Your task to perform on an android device: Search for lg ultragear on costco, select the first entry, and add it to the cart. Image 0: 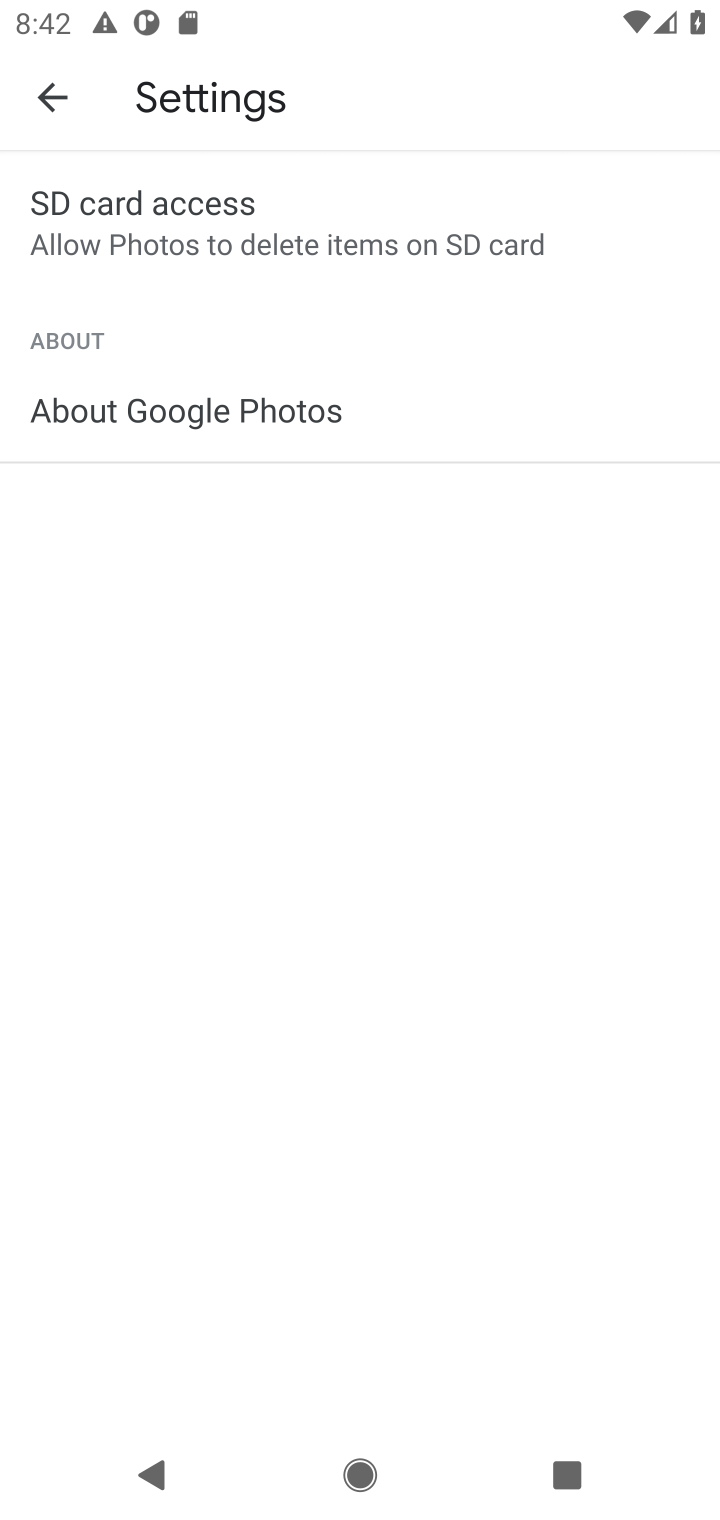
Step 0: press home button
Your task to perform on an android device: Search for lg ultragear on costco, select the first entry, and add it to the cart. Image 1: 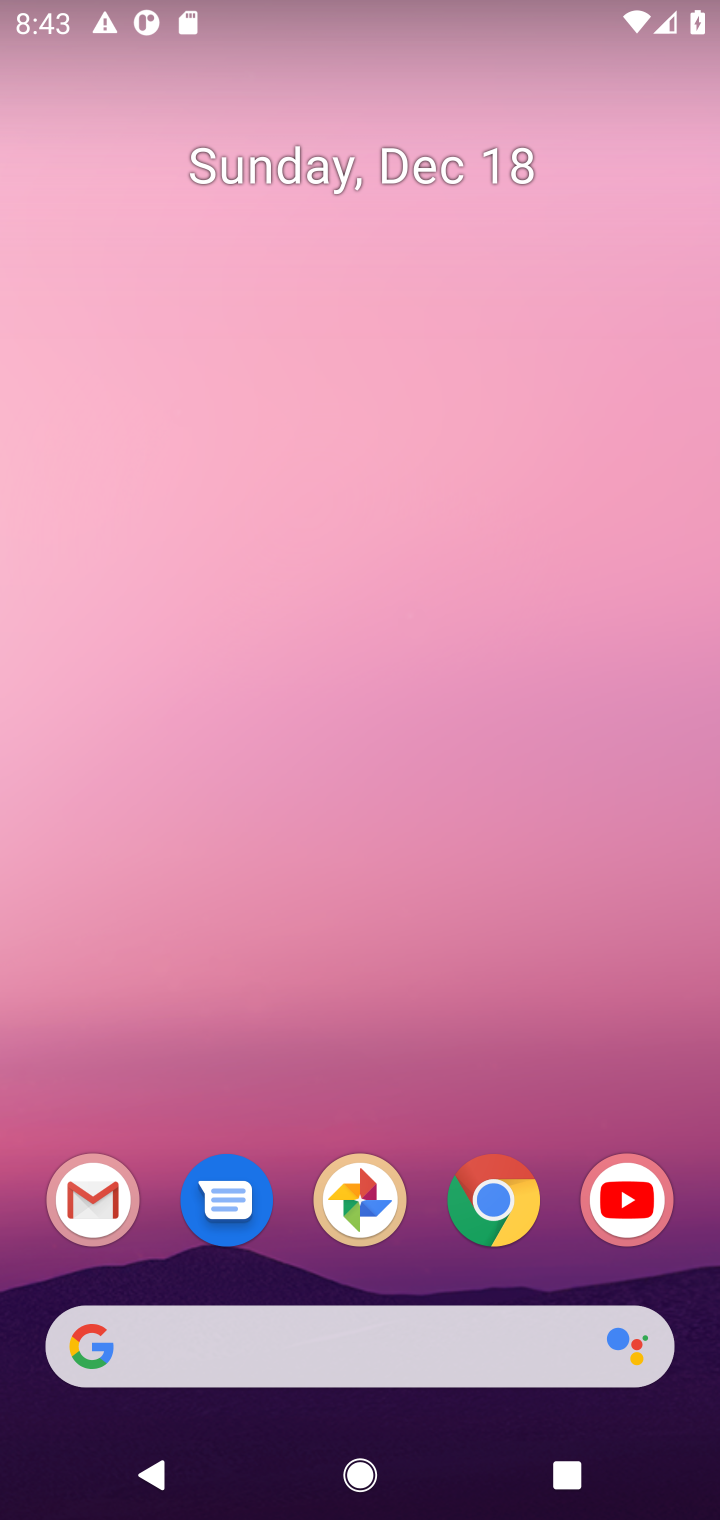
Step 1: click (496, 1207)
Your task to perform on an android device: Search for lg ultragear on costco, select the first entry, and add it to the cart. Image 2: 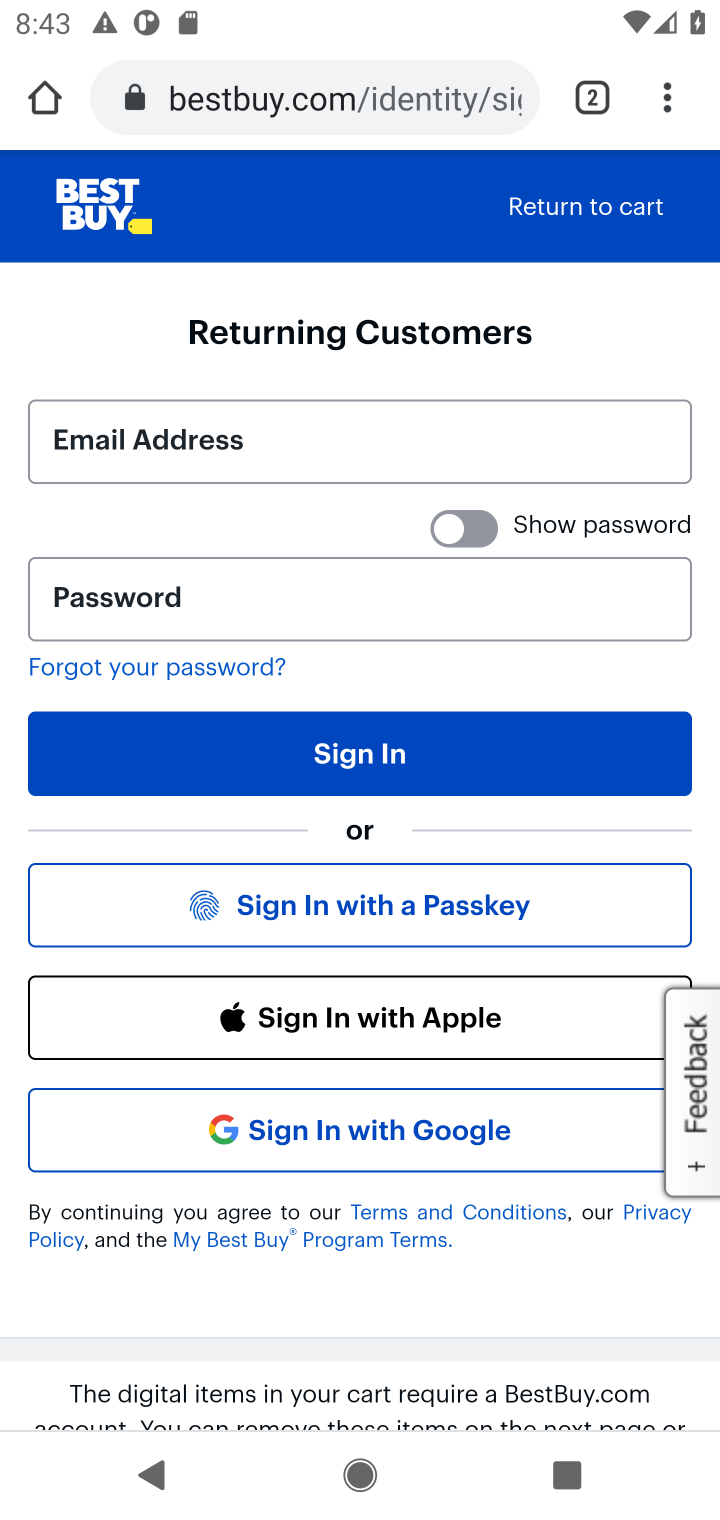
Step 2: click (277, 96)
Your task to perform on an android device: Search for lg ultragear on costco, select the first entry, and add it to the cart. Image 3: 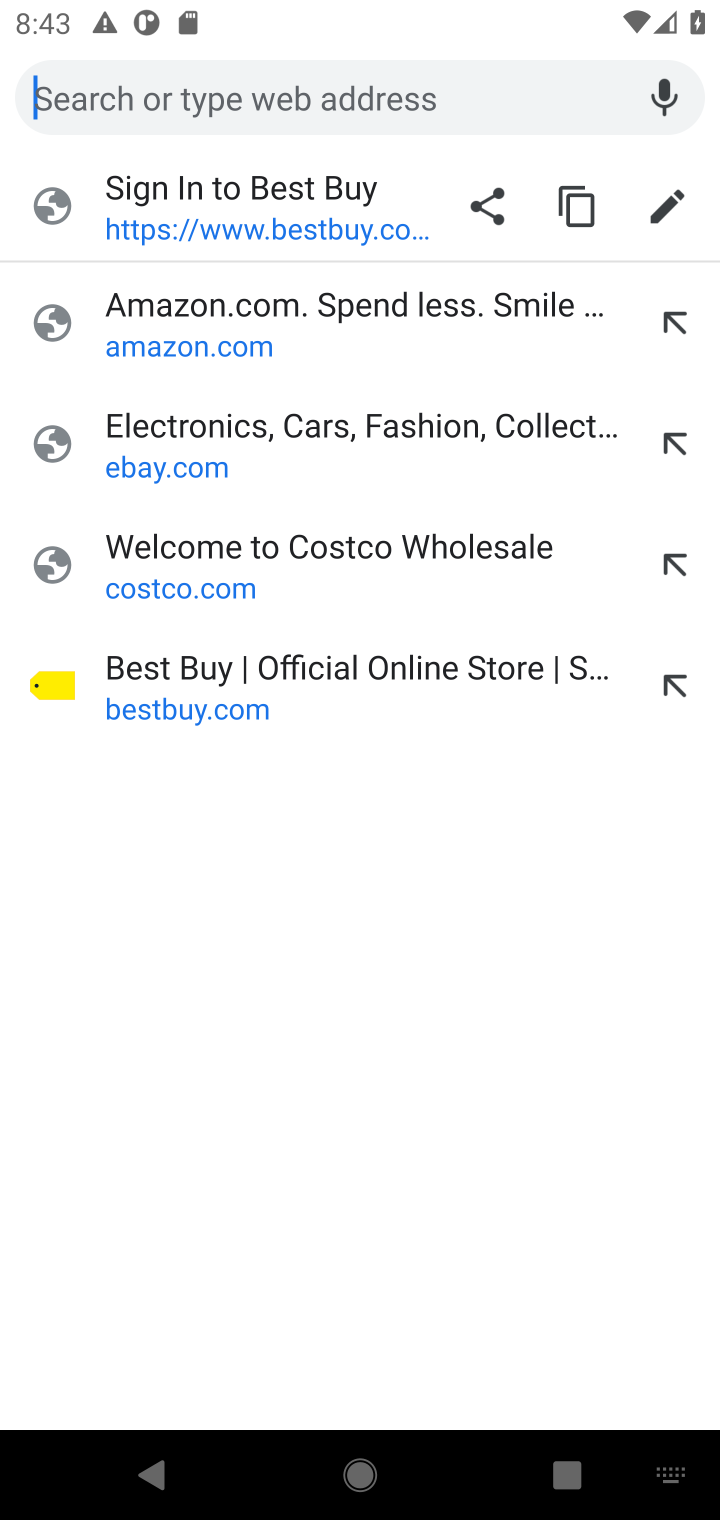
Step 3: click (173, 570)
Your task to perform on an android device: Search for lg ultragear on costco, select the first entry, and add it to the cart. Image 4: 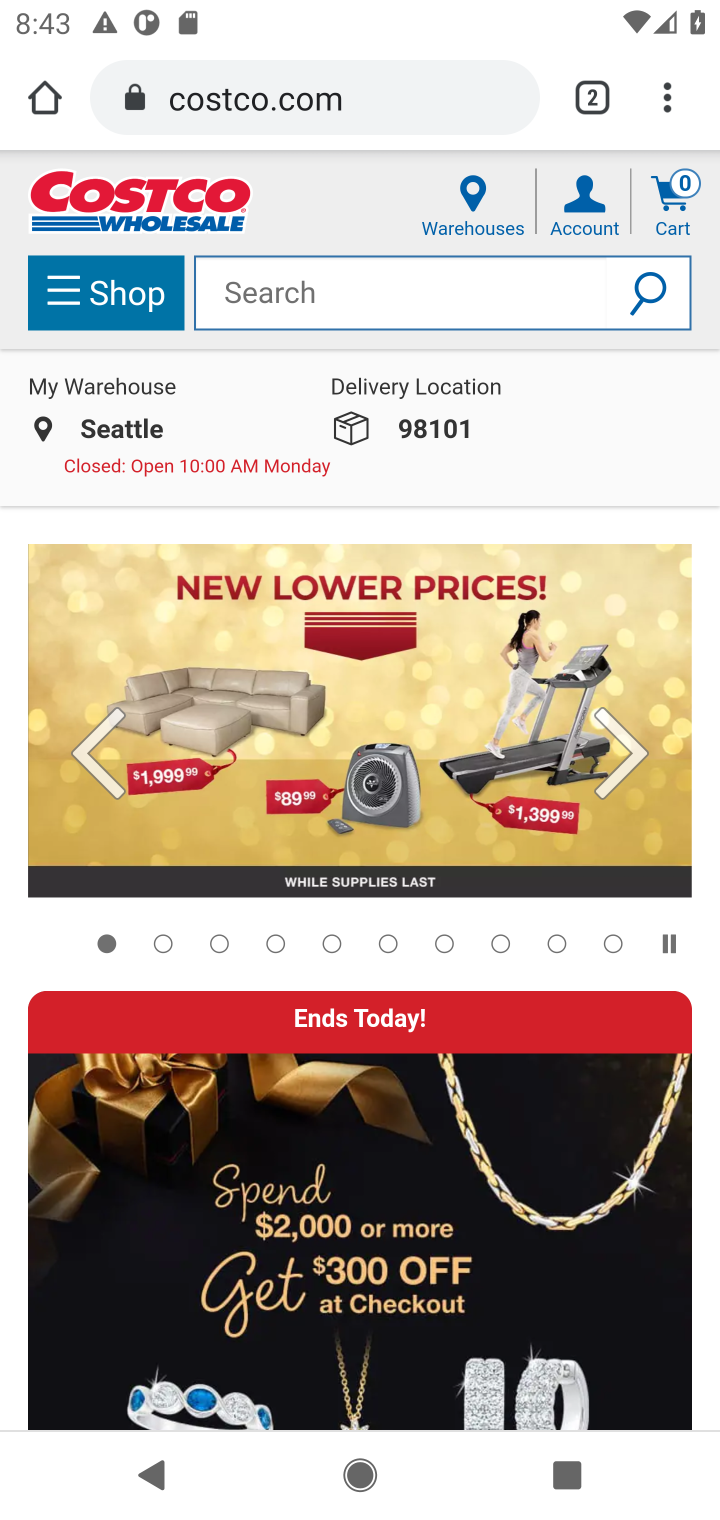
Step 4: click (352, 301)
Your task to perform on an android device: Search for lg ultragear on costco, select the first entry, and add it to the cart. Image 5: 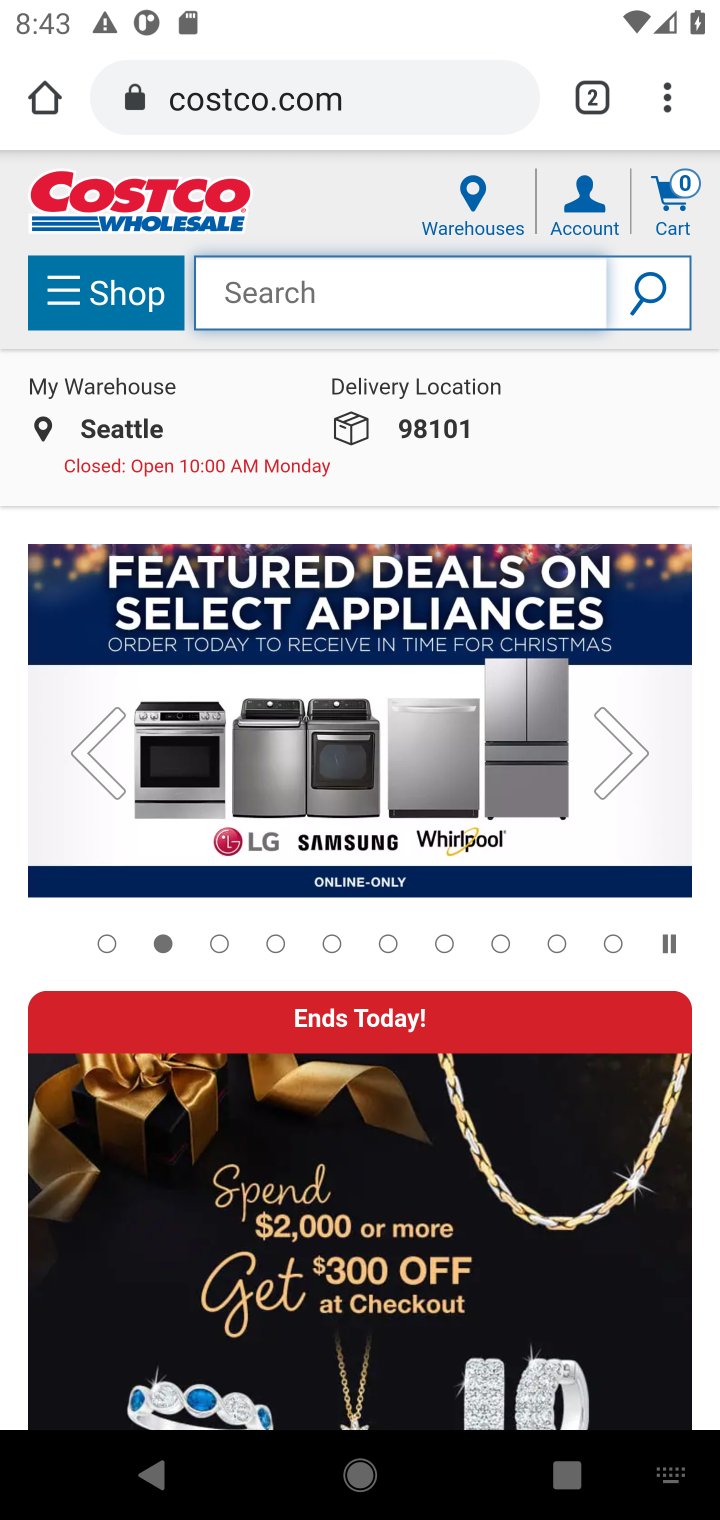
Step 5: type "lg ultragear"
Your task to perform on an android device: Search for lg ultragear on costco, select the first entry, and add it to the cart. Image 6: 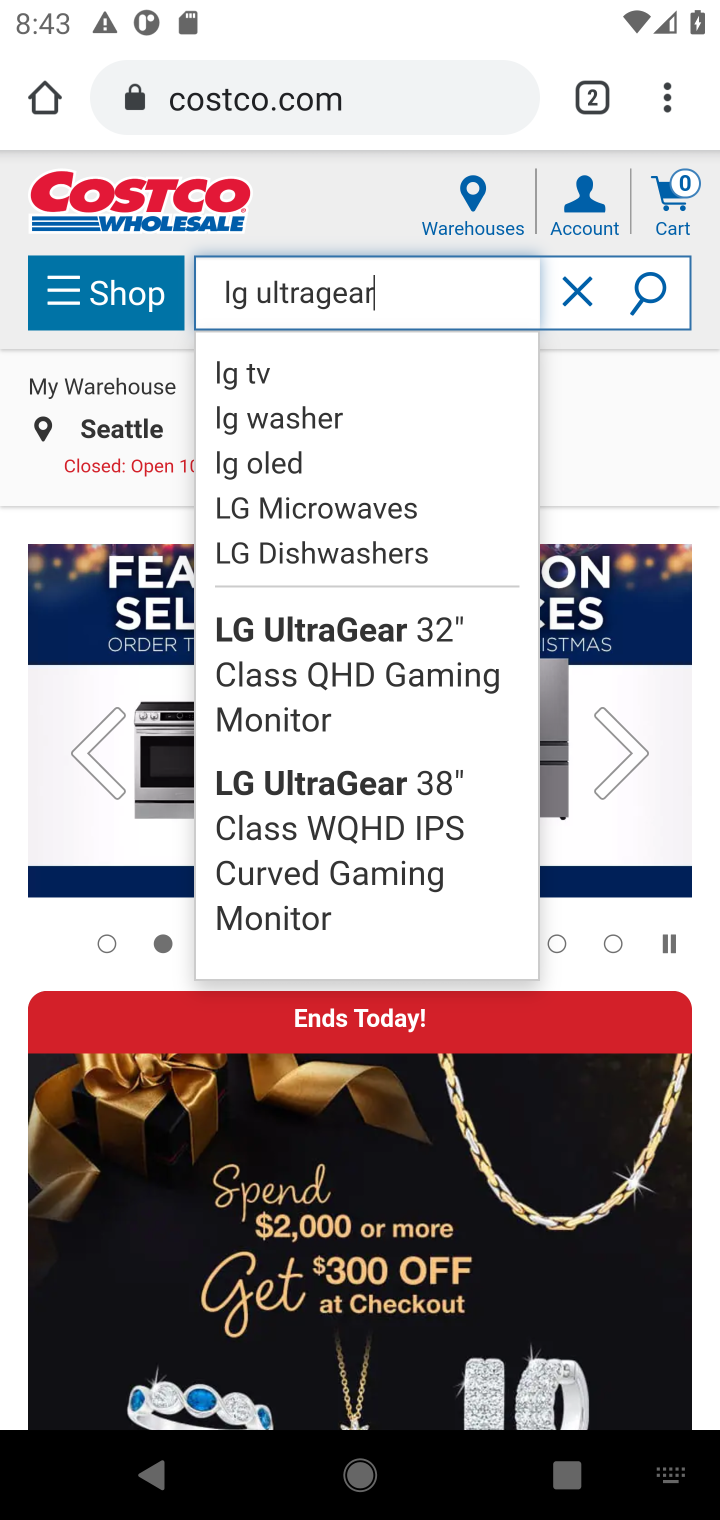
Step 6: click (647, 293)
Your task to perform on an android device: Search for lg ultragear on costco, select the first entry, and add it to the cart. Image 7: 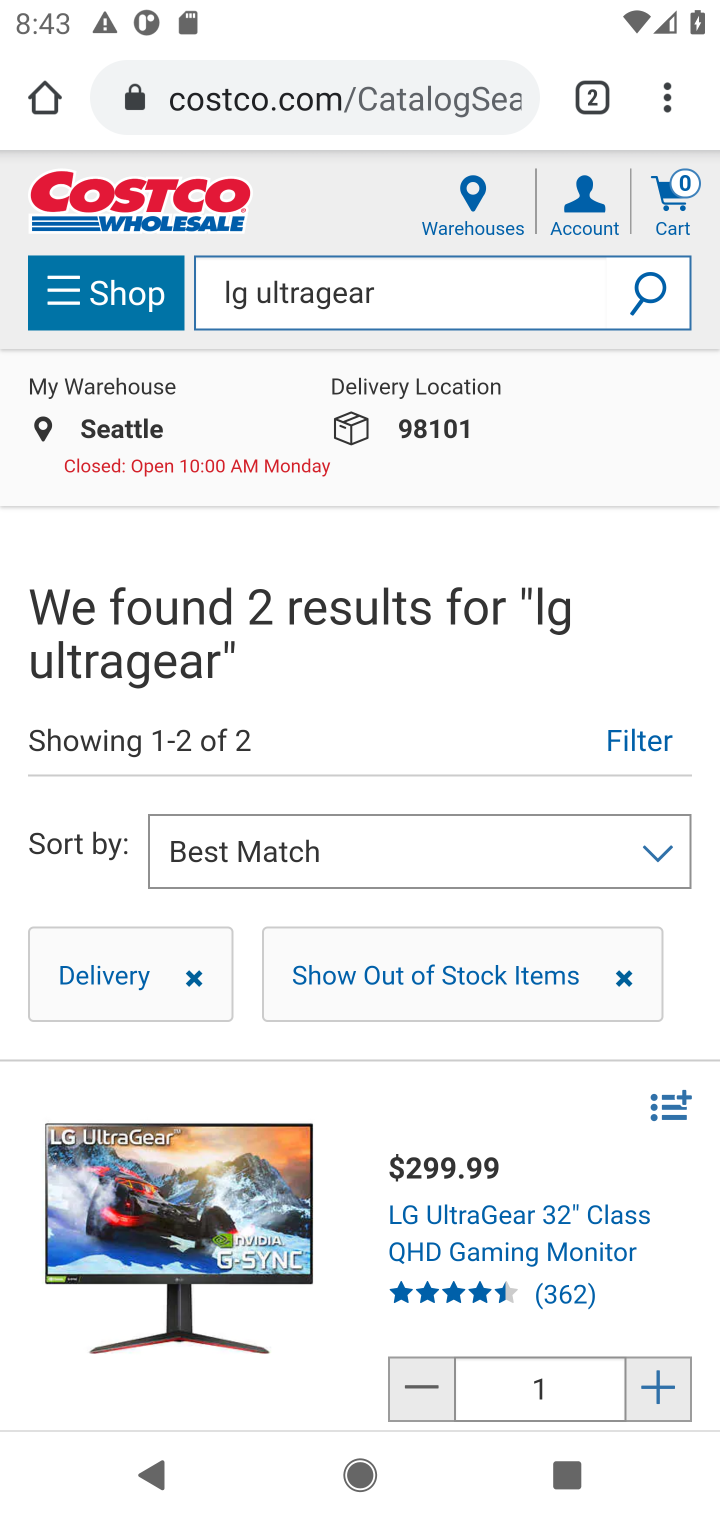
Step 7: drag from (195, 897) to (248, 403)
Your task to perform on an android device: Search for lg ultragear on costco, select the first entry, and add it to the cart. Image 8: 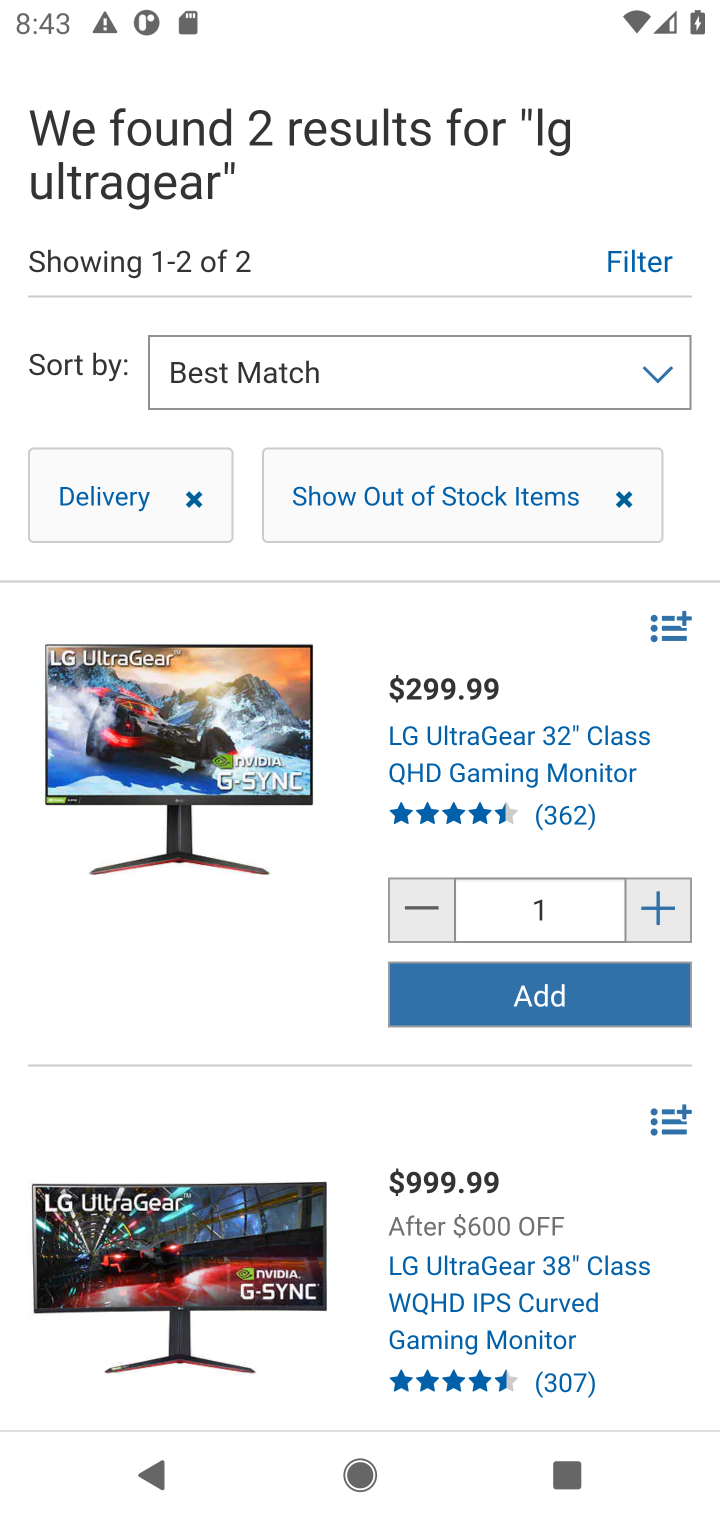
Step 8: click (565, 1016)
Your task to perform on an android device: Search for lg ultragear on costco, select the first entry, and add it to the cart. Image 9: 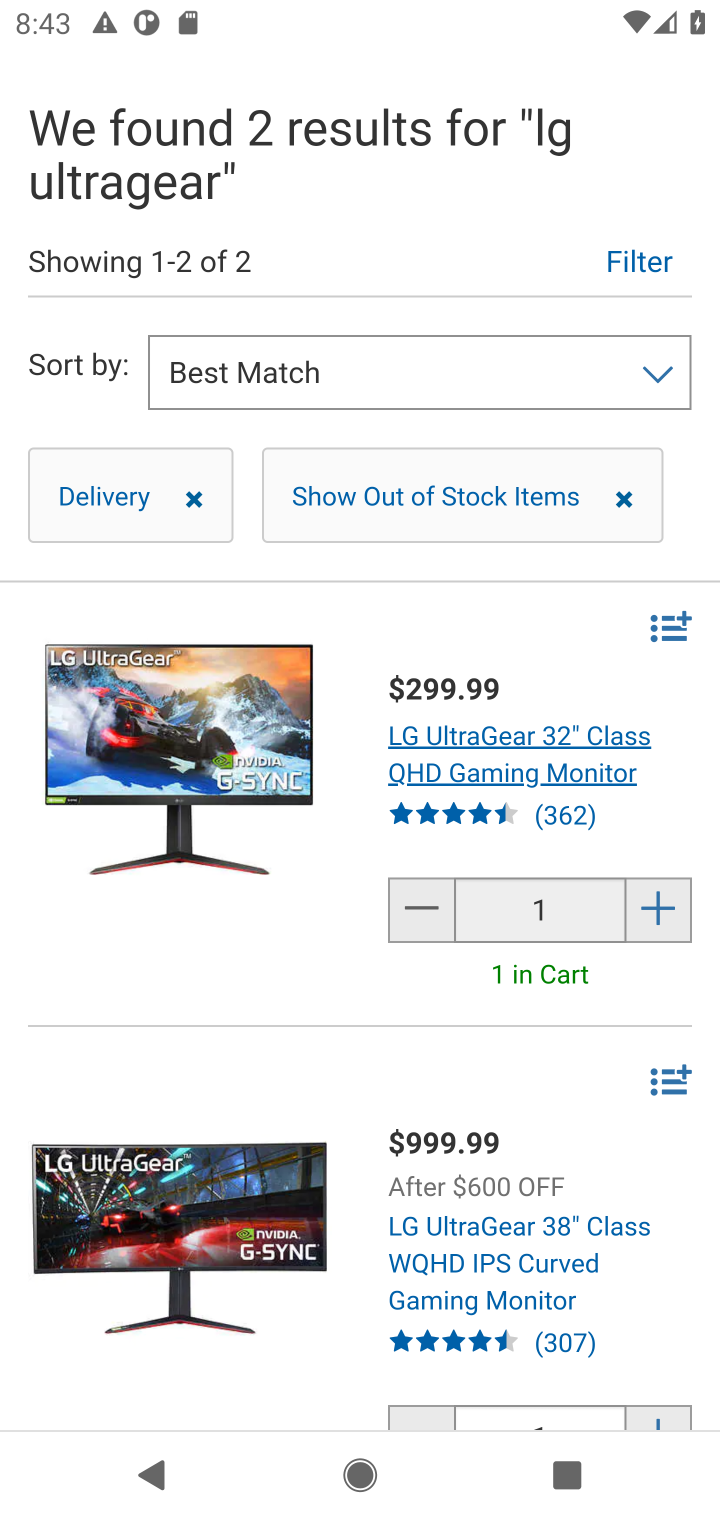
Step 9: task complete